Your task to perform on an android device: change the clock display to digital Image 0: 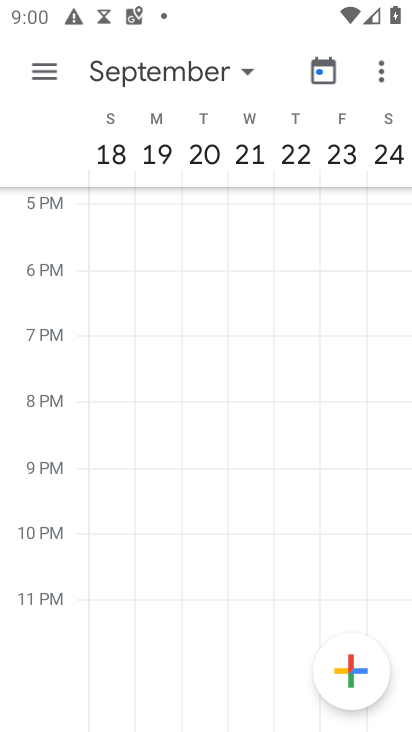
Step 0: press home button
Your task to perform on an android device: change the clock display to digital Image 1: 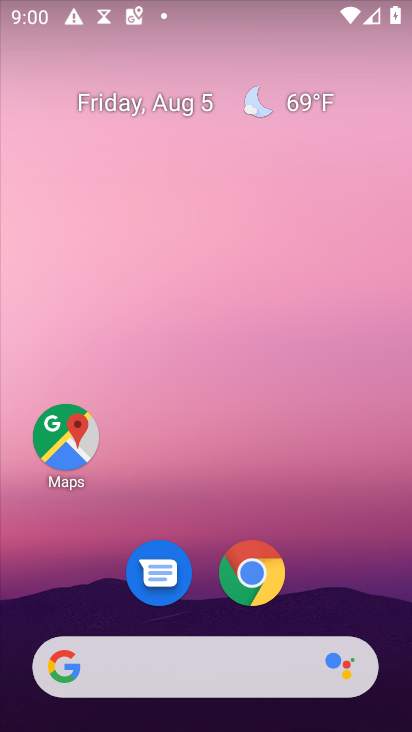
Step 1: drag from (188, 668) to (300, 181)
Your task to perform on an android device: change the clock display to digital Image 2: 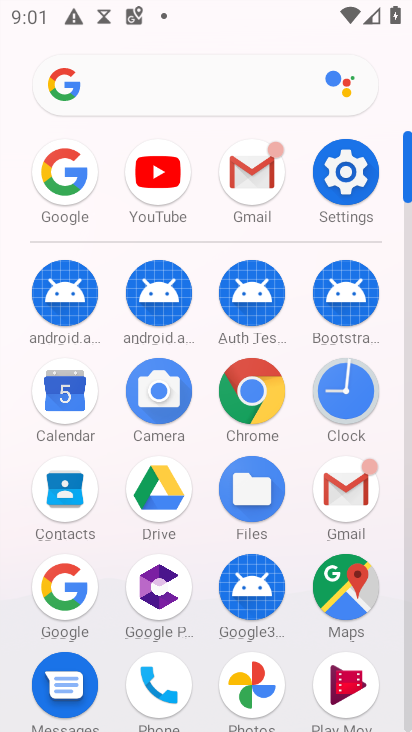
Step 2: click (346, 390)
Your task to perform on an android device: change the clock display to digital Image 3: 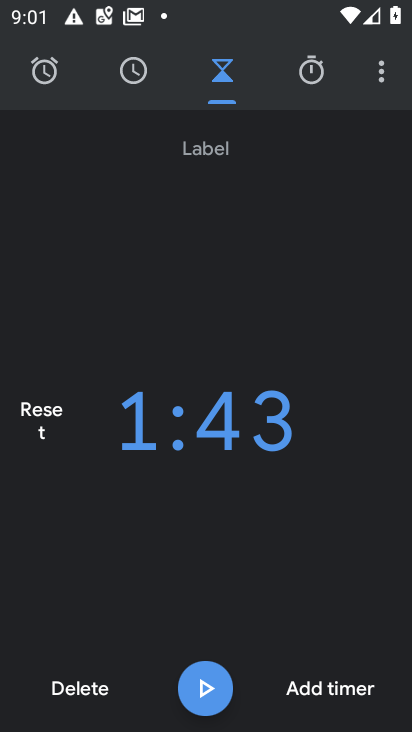
Step 3: click (383, 76)
Your task to perform on an android device: change the clock display to digital Image 4: 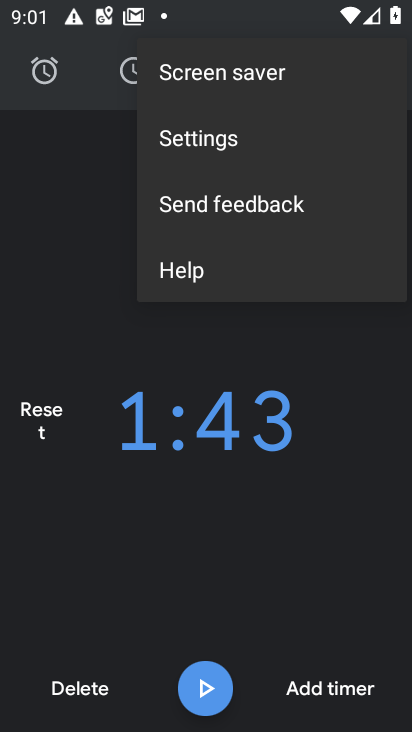
Step 4: click (222, 139)
Your task to perform on an android device: change the clock display to digital Image 5: 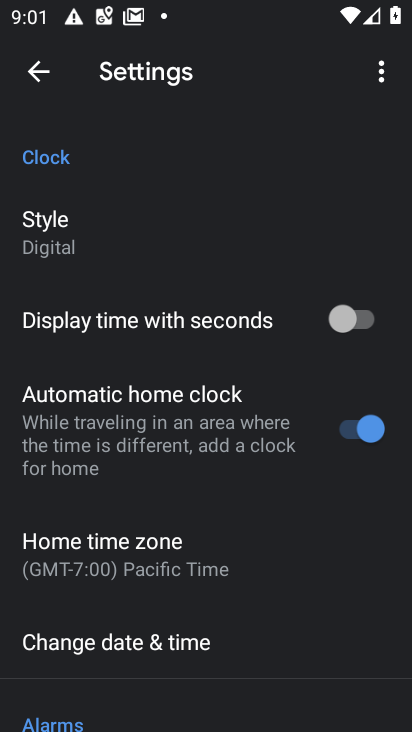
Step 5: click (72, 240)
Your task to perform on an android device: change the clock display to digital Image 6: 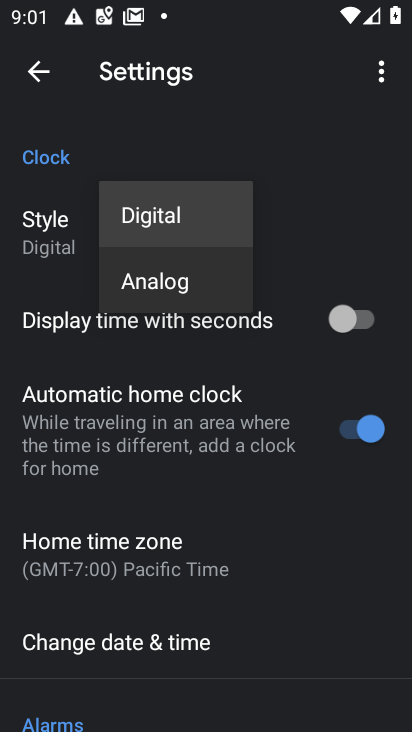
Step 6: click (132, 225)
Your task to perform on an android device: change the clock display to digital Image 7: 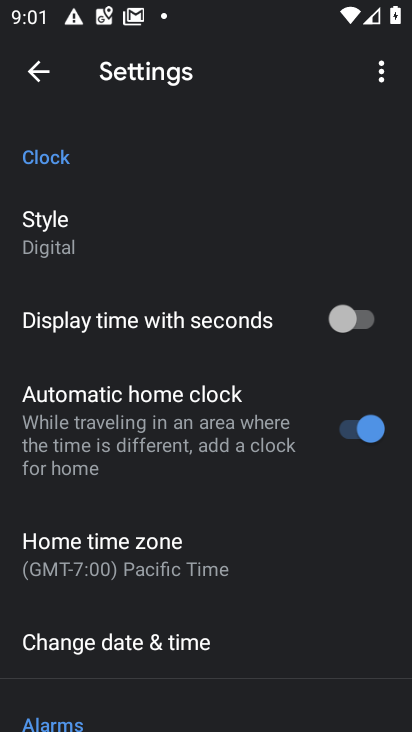
Step 7: task complete